Your task to perform on an android device: Open CNN.com Image 0: 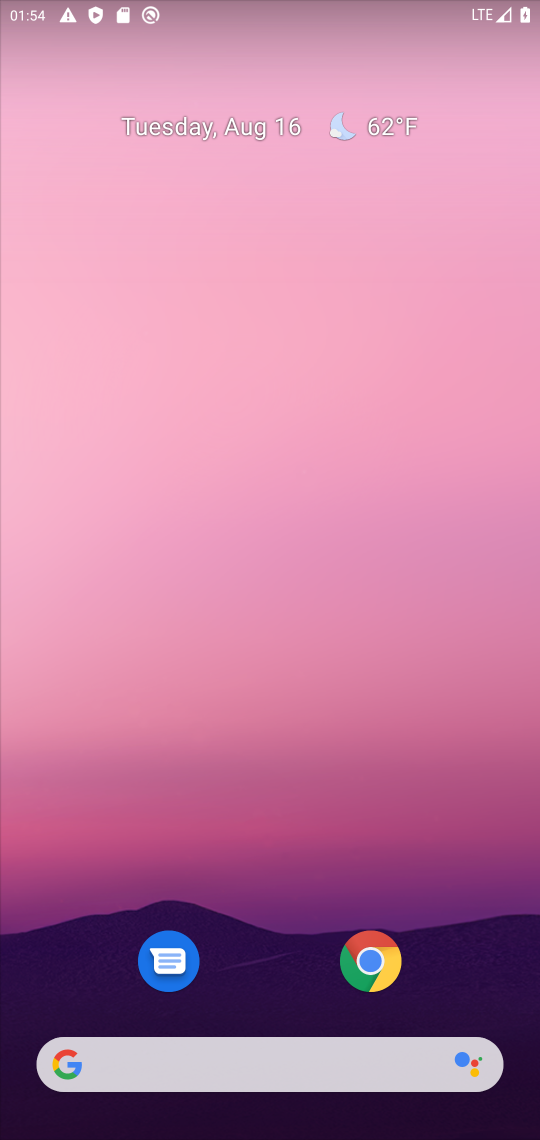
Step 0: press home button
Your task to perform on an android device: Open CNN.com Image 1: 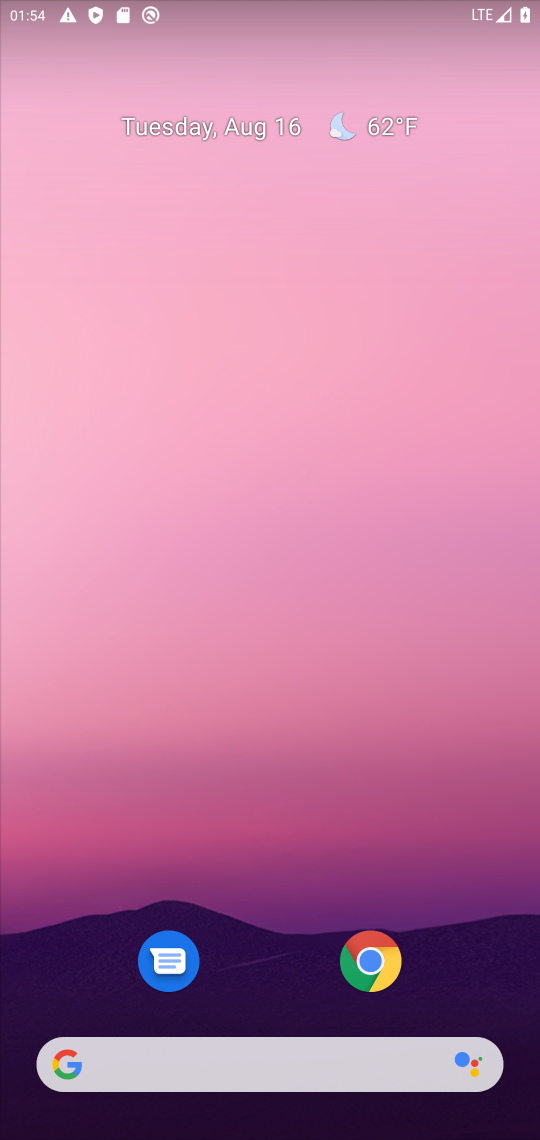
Step 1: press home button
Your task to perform on an android device: Open CNN.com Image 2: 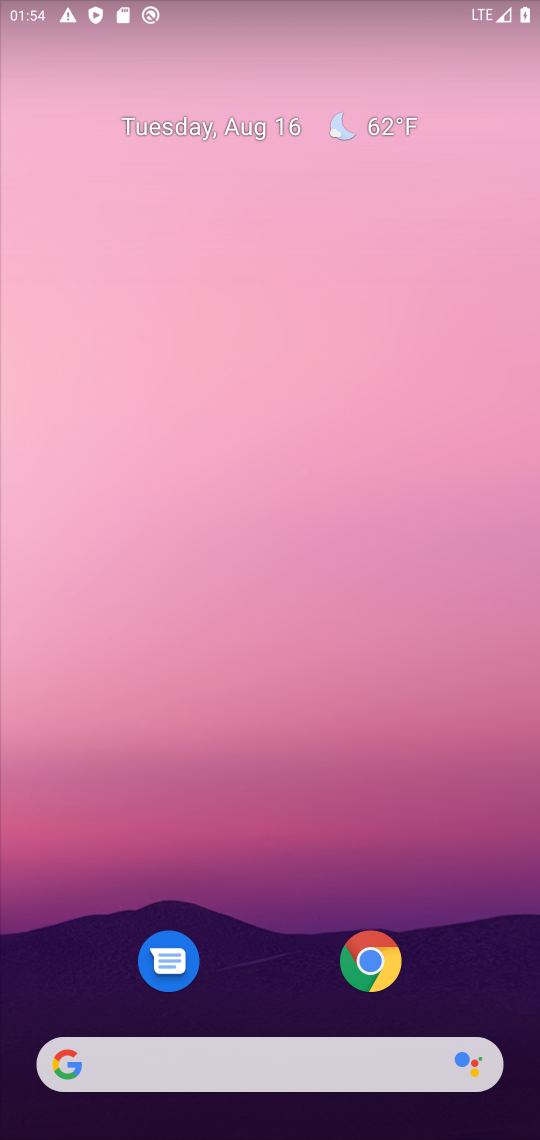
Step 2: drag from (218, 1007) to (269, 308)
Your task to perform on an android device: Open CNN.com Image 3: 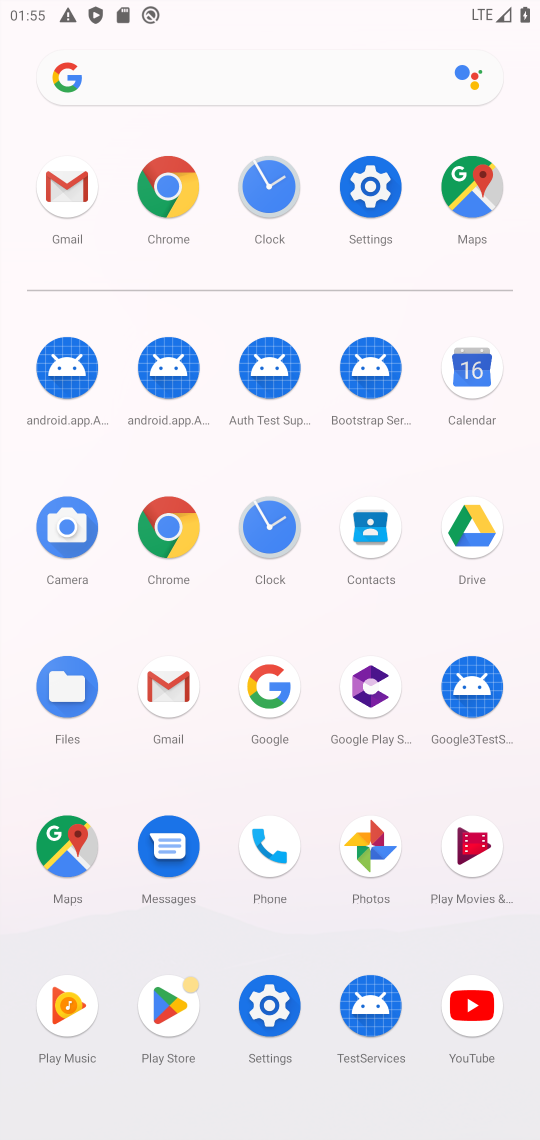
Step 3: click (167, 572)
Your task to perform on an android device: Open CNN.com Image 4: 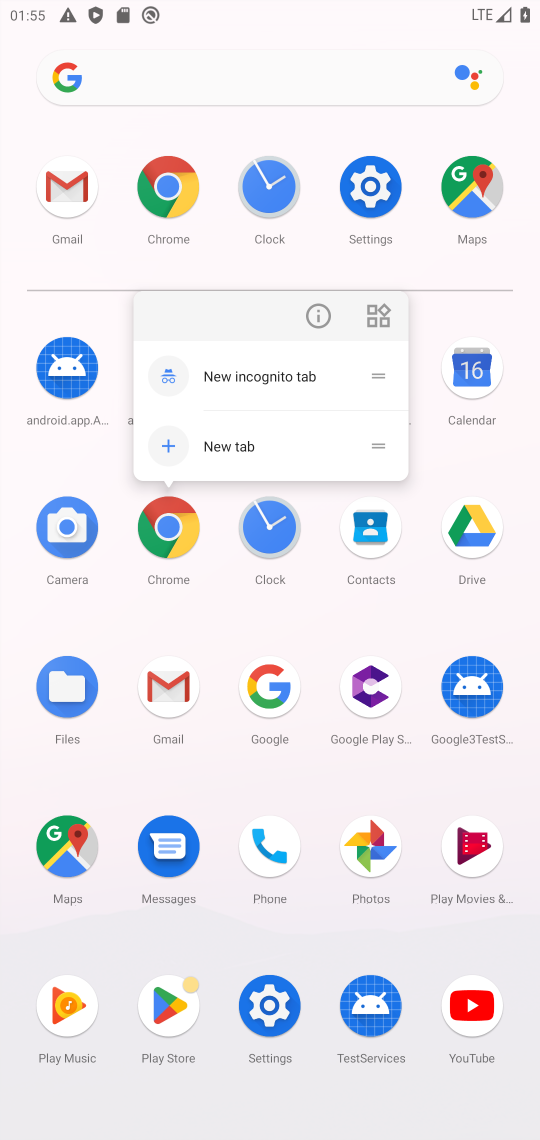
Step 4: click (161, 552)
Your task to perform on an android device: Open CNN.com Image 5: 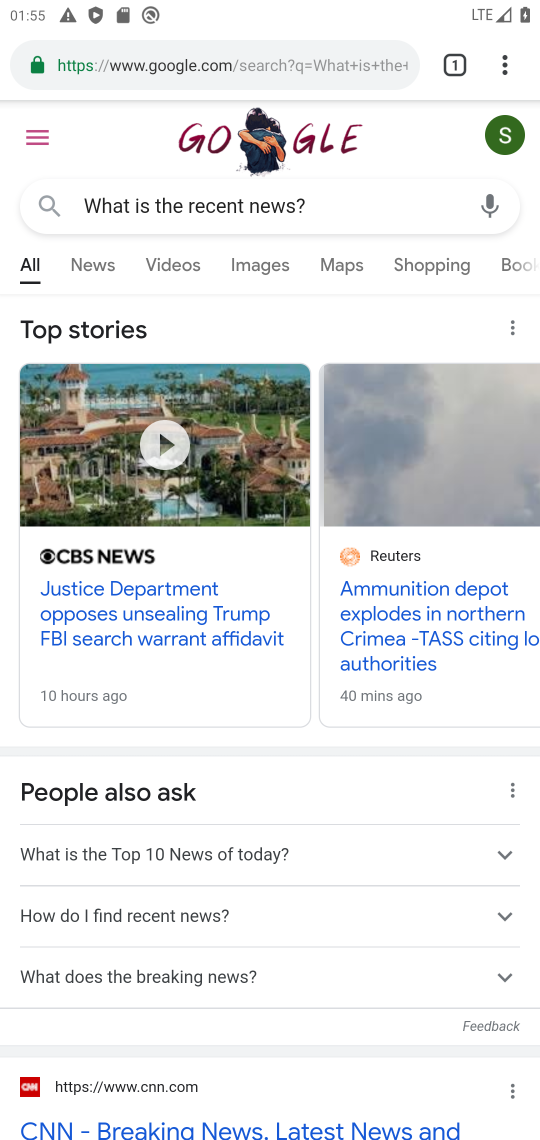
Step 5: click (219, 69)
Your task to perform on an android device: Open CNN.com Image 6: 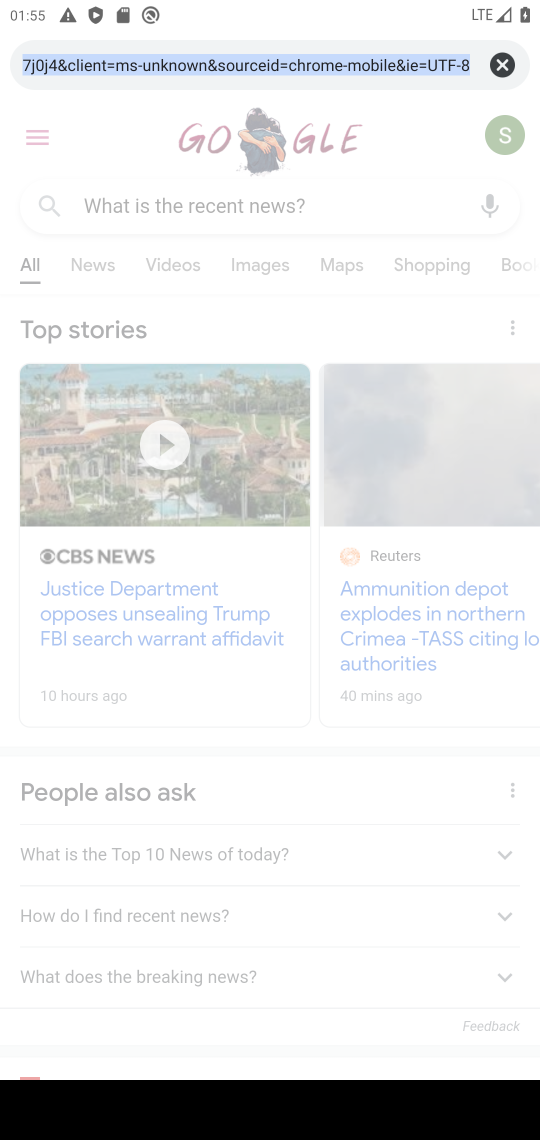
Step 6: type "CNN.com"
Your task to perform on an android device: Open CNN.com Image 7: 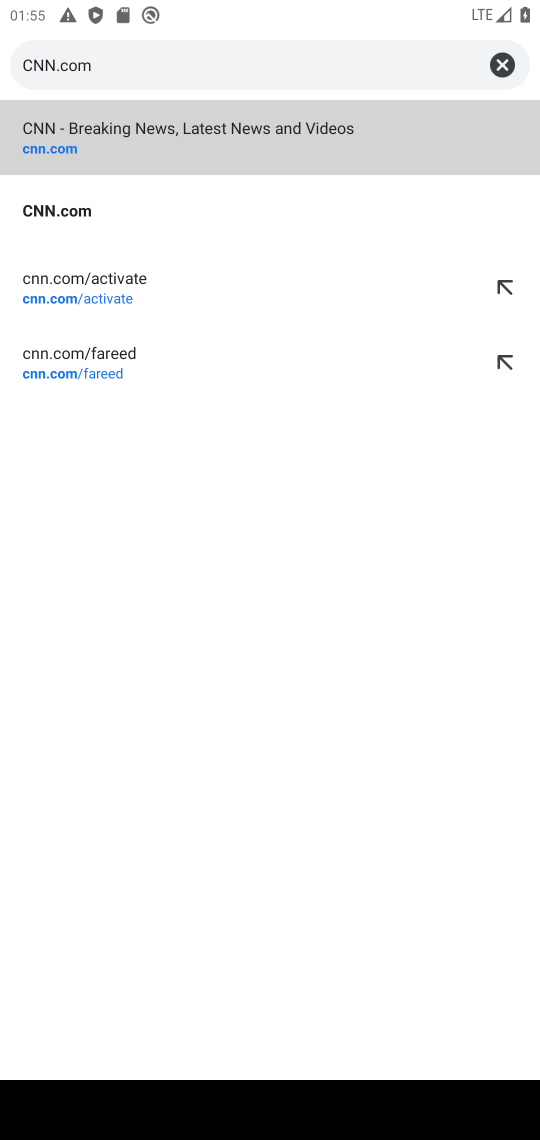
Step 7: click (324, 125)
Your task to perform on an android device: Open CNN.com Image 8: 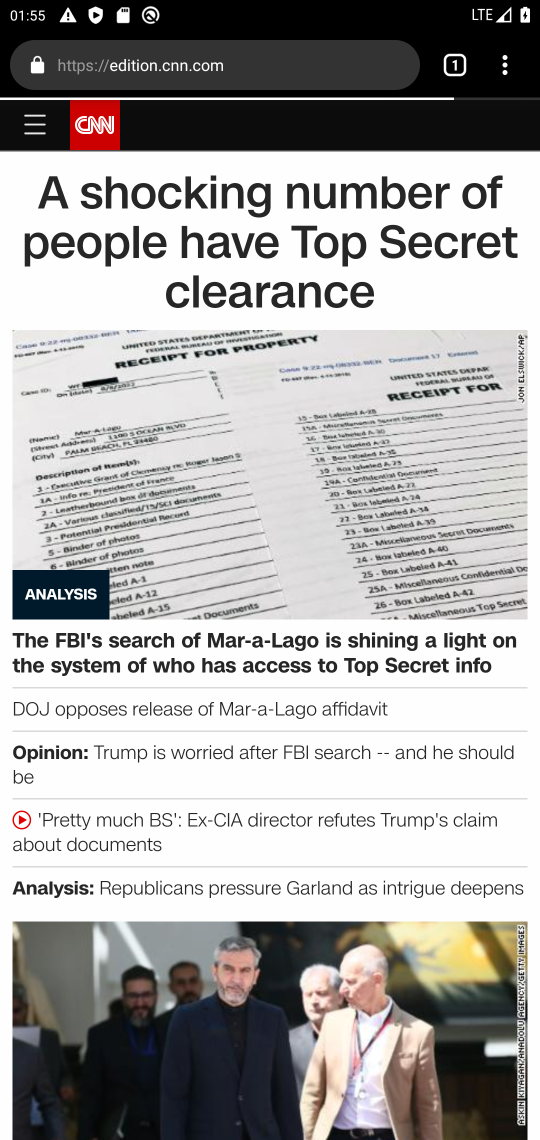
Step 8: task complete